Your task to perform on an android device: open a new tab in the chrome app Image 0: 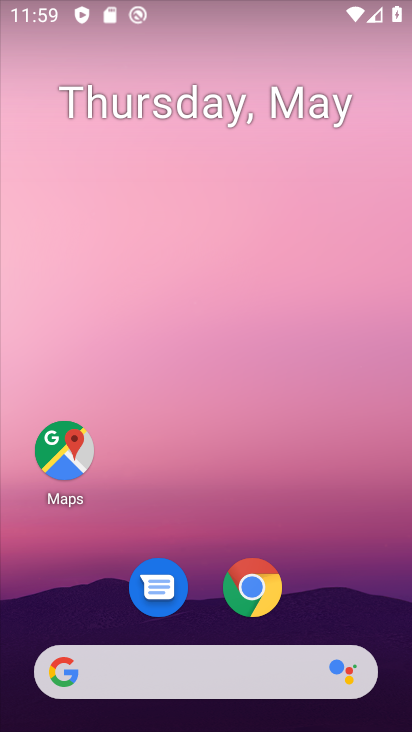
Step 0: click (254, 589)
Your task to perform on an android device: open a new tab in the chrome app Image 1: 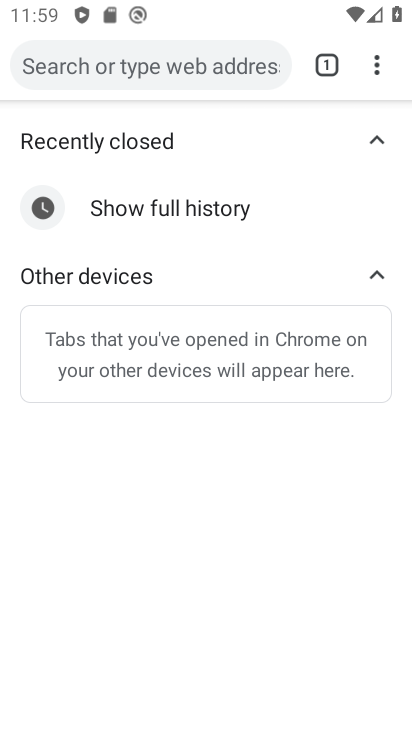
Step 1: click (381, 64)
Your task to perform on an android device: open a new tab in the chrome app Image 2: 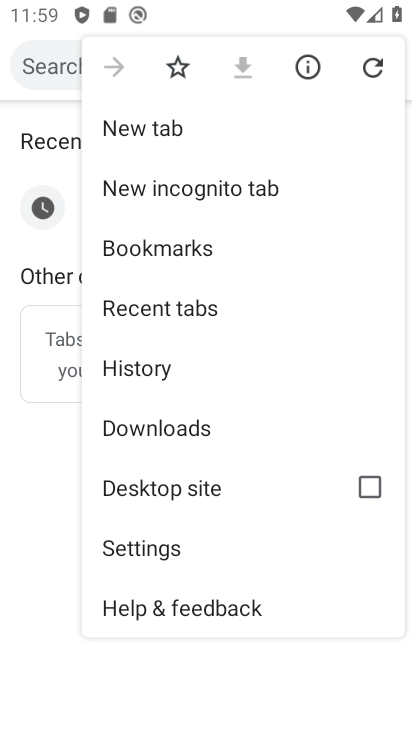
Step 2: click (166, 103)
Your task to perform on an android device: open a new tab in the chrome app Image 3: 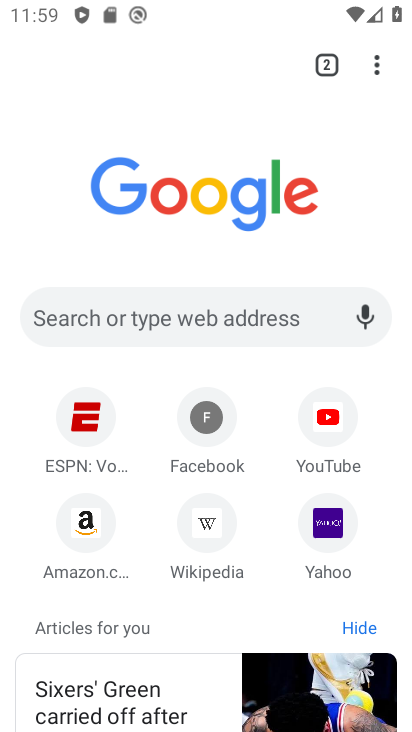
Step 3: task complete